Your task to perform on an android device: change the clock style Image 0: 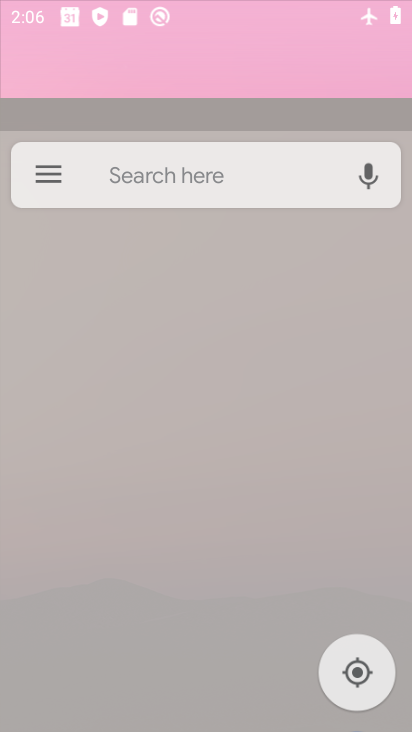
Step 0: drag from (239, 386) to (169, 147)
Your task to perform on an android device: change the clock style Image 1: 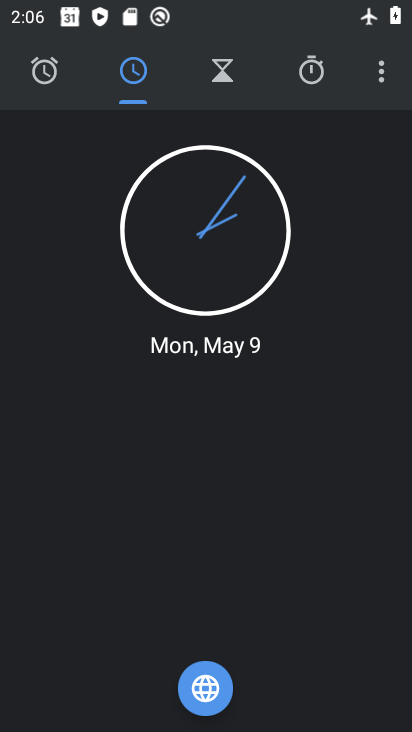
Step 1: press home button
Your task to perform on an android device: change the clock style Image 2: 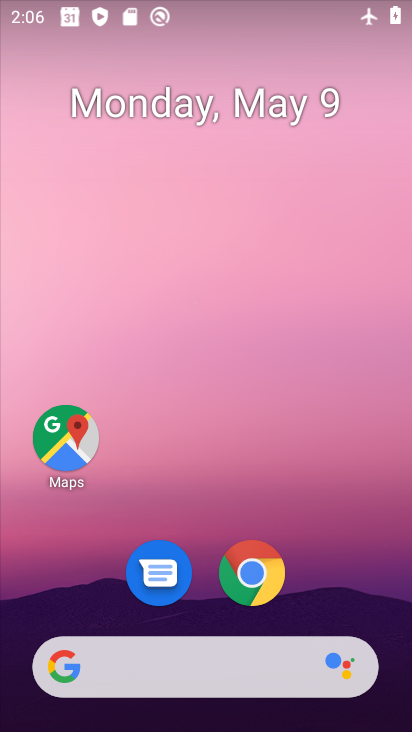
Step 2: click (71, 438)
Your task to perform on an android device: change the clock style Image 3: 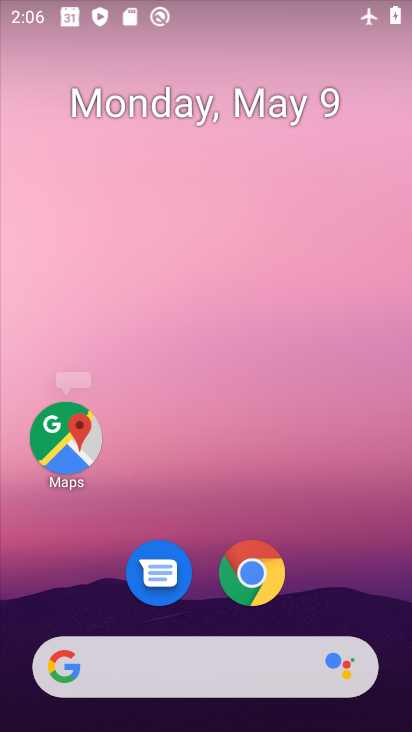
Step 3: click (72, 439)
Your task to perform on an android device: change the clock style Image 4: 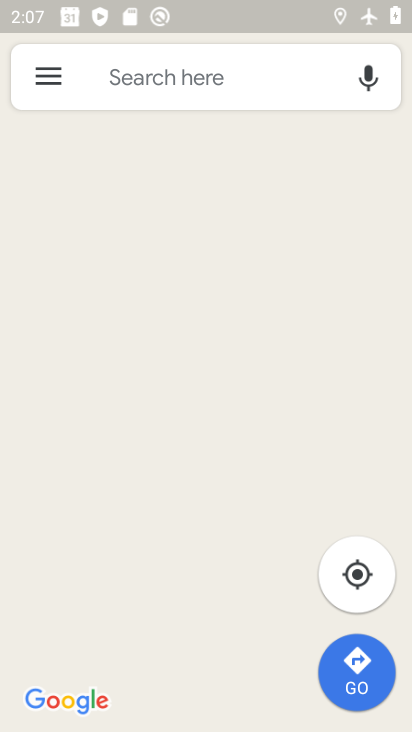
Step 4: press home button
Your task to perform on an android device: change the clock style Image 5: 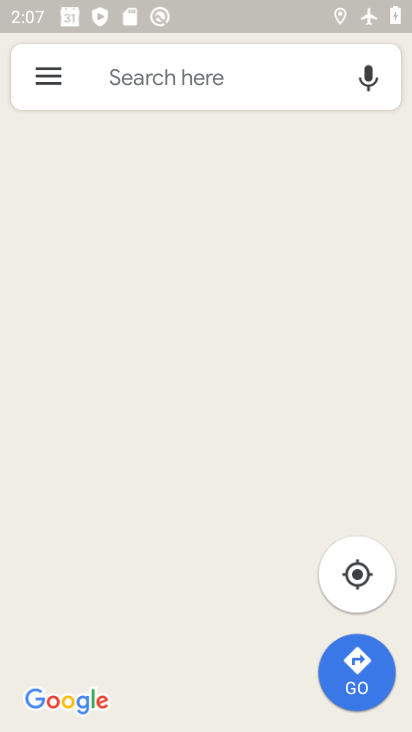
Step 5: press home button
Your task to perform on an android device: change the clock style Image 6: 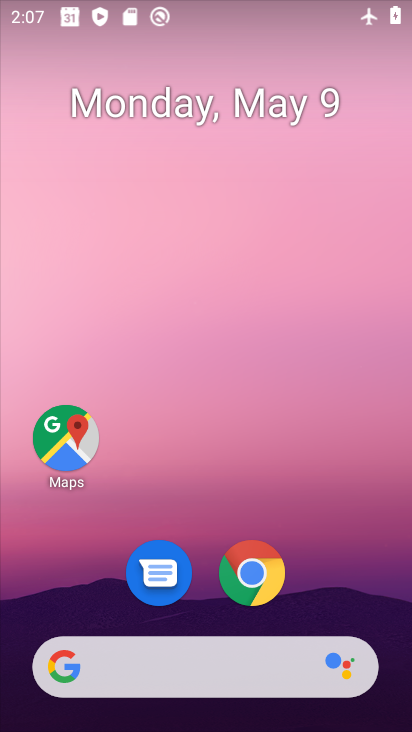
Step 6: drag from (324, 602) to (150, 21)
Your task to perform on an android device: change the clock style Image 7: 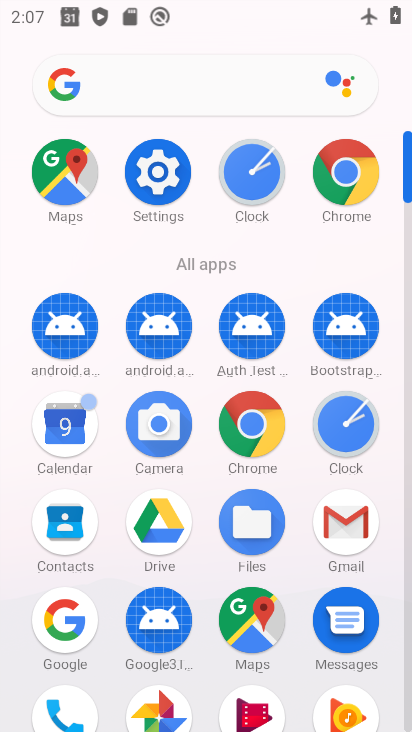
Step 7: click (353, 418)
Your task to perform on an android device: change the clock style Image 8: 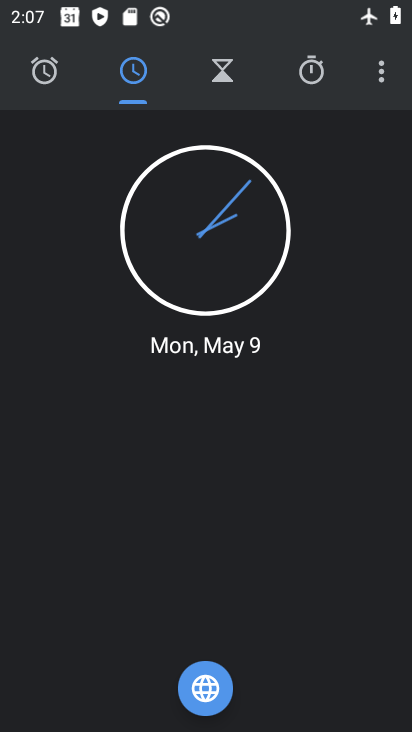
Step 8: click (382, 71)
Your task to perform on an android device: change the clock style Image 9: 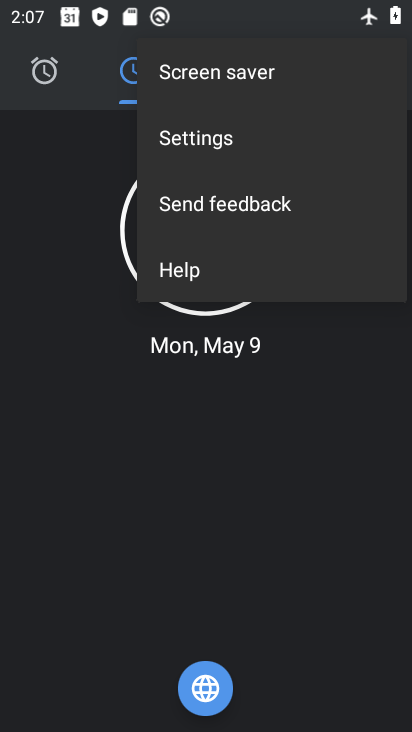
Step 9: click (186, 141)
Your task to perform on an android device: change the clock style Image 10: 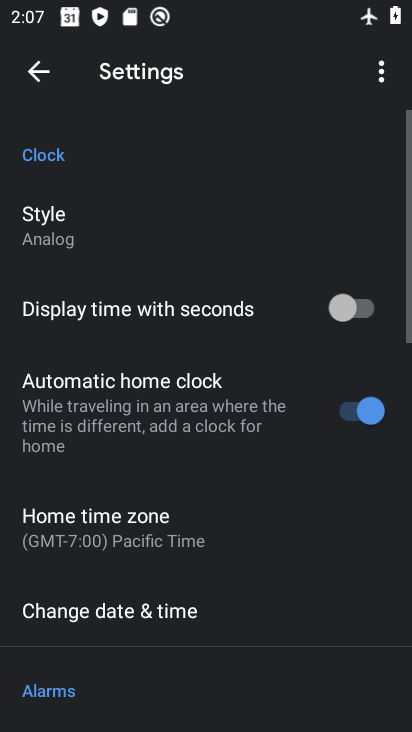
Step 10: click (105, 234)
Your task to perform on an android device: change the clock style Image 11: 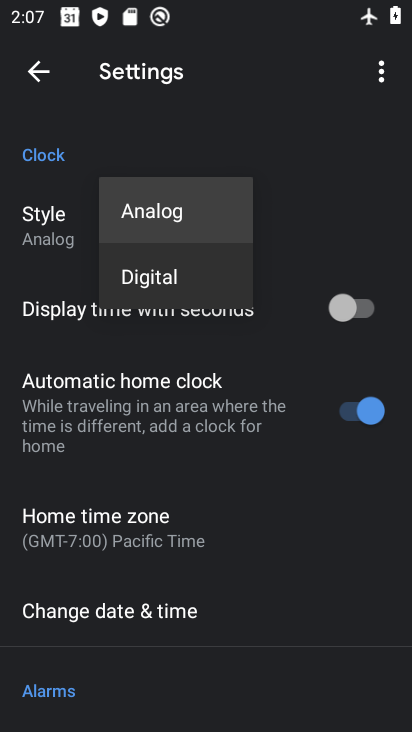
Step 11: click (139, 282)
Your task to perform on an android device: change the clock style Image 12: 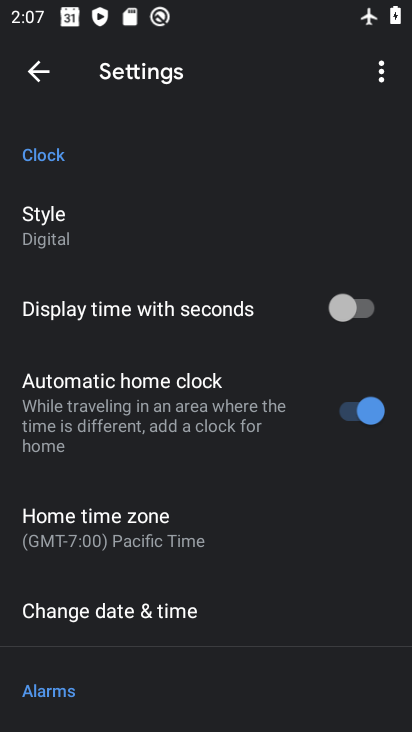
Step 12: task complete